Your task to perform on an android device: Go to Amazon Image 0: 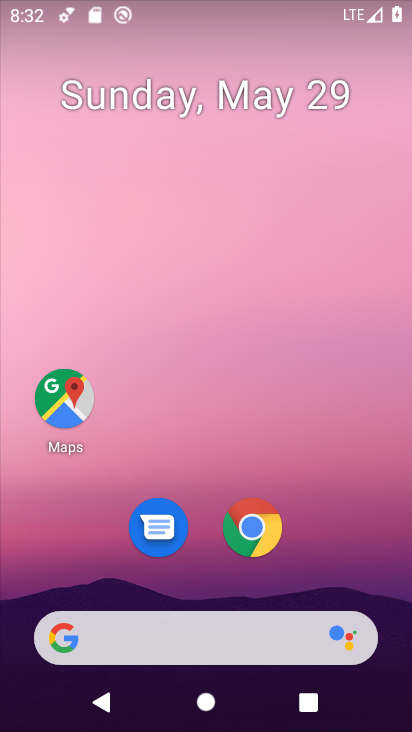
Step 0: click (253, 521)
Your task to perform on an android device: Go to Amazon Image 1: 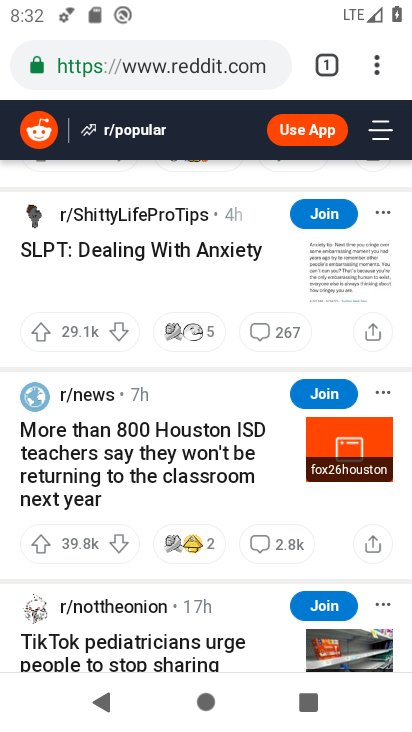
Step 1: click (324, 55)
Your task to perform on an android device: Go to Amazon Image 2: 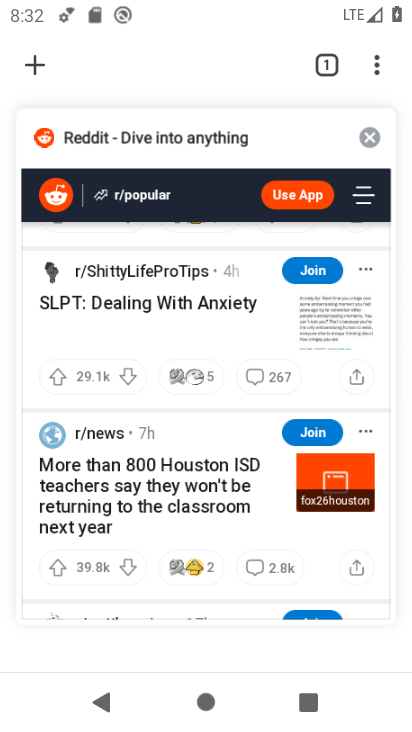
Step 2: click (372, 130)
Your task to perform on an android device: Go to Amazon Image 3: 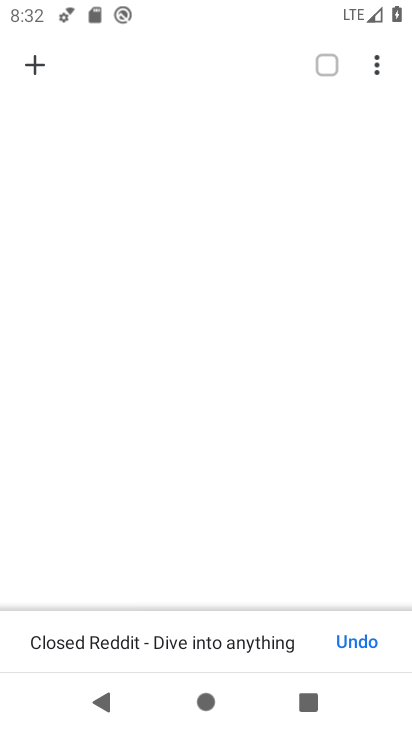
Step 3: click (38, 69)
Your task to perform on an android device: Go to Amazon Image 4: 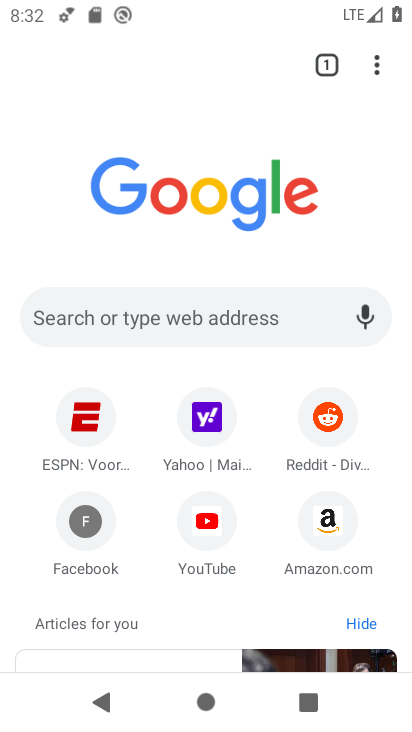
Step 4: click (330, 513)
Your task to perform on an android device: Go to Amazon Image 5: 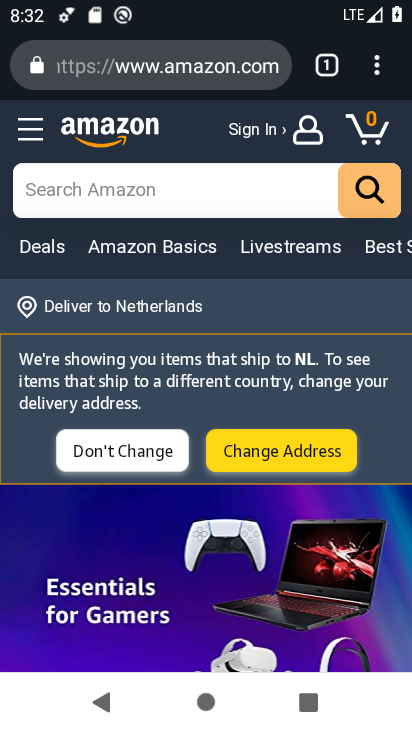
Step 5: task complete